Your task to perform on an android device: stop showing notifications on the lock screen Image 0: 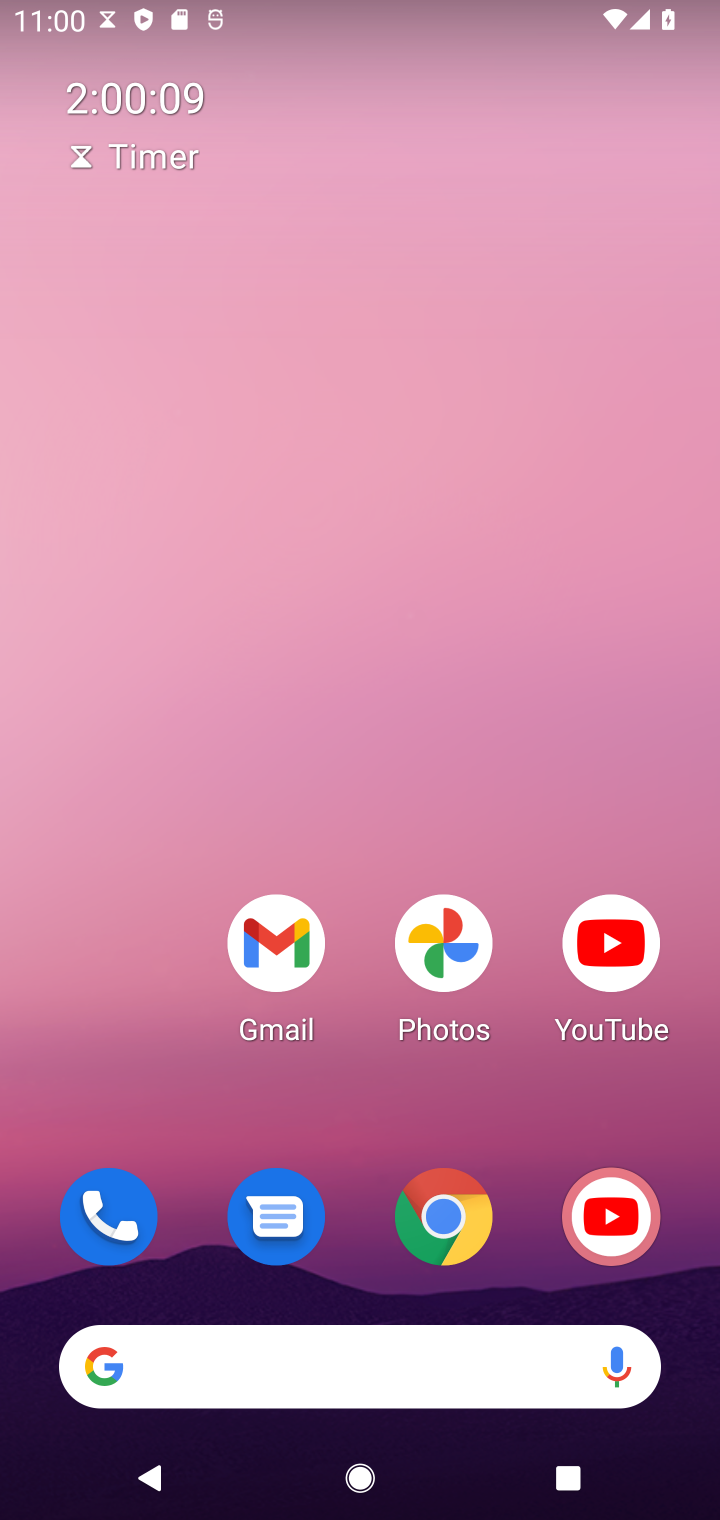
Step 0: drag from (112, 1094) to (384, 35)
Your task to perform on an android device: stop showing notifications on the lock screen Image 1: 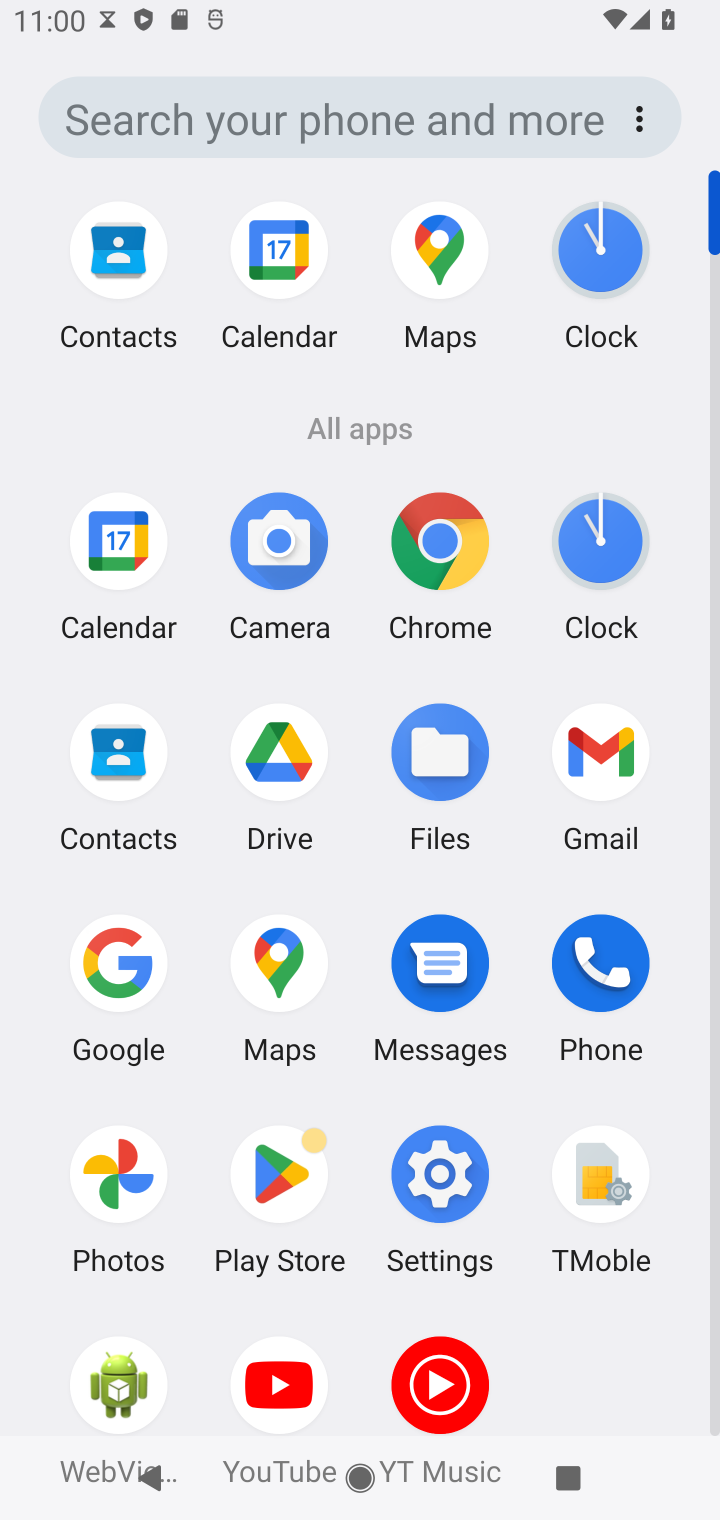
Step 1: click (441, 1174)
Your task to perform on an android device: stop showing notifications on the lock screen Image 2: 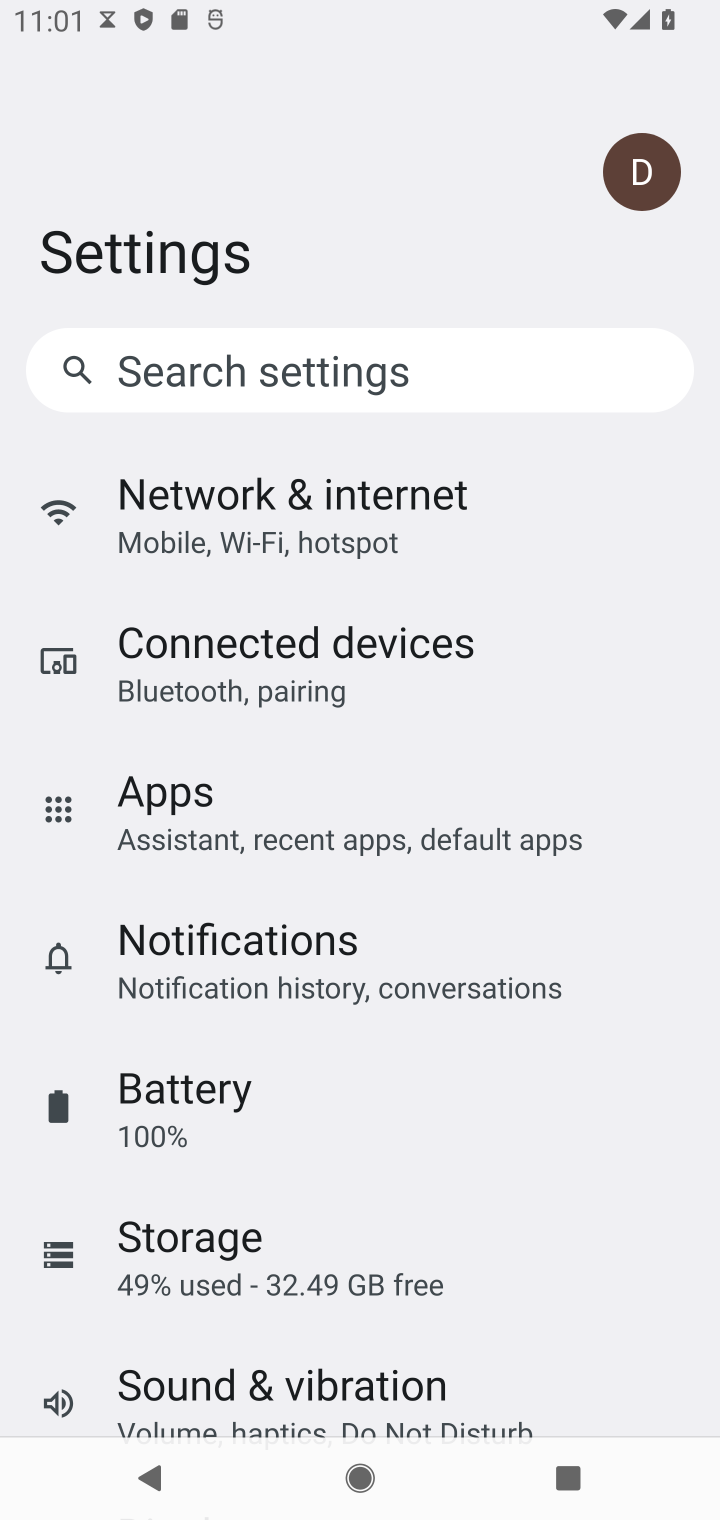
Step 2: click (255, 899)
Your task to perform on an android device: stop showing notifications on the lock screen Image 3: 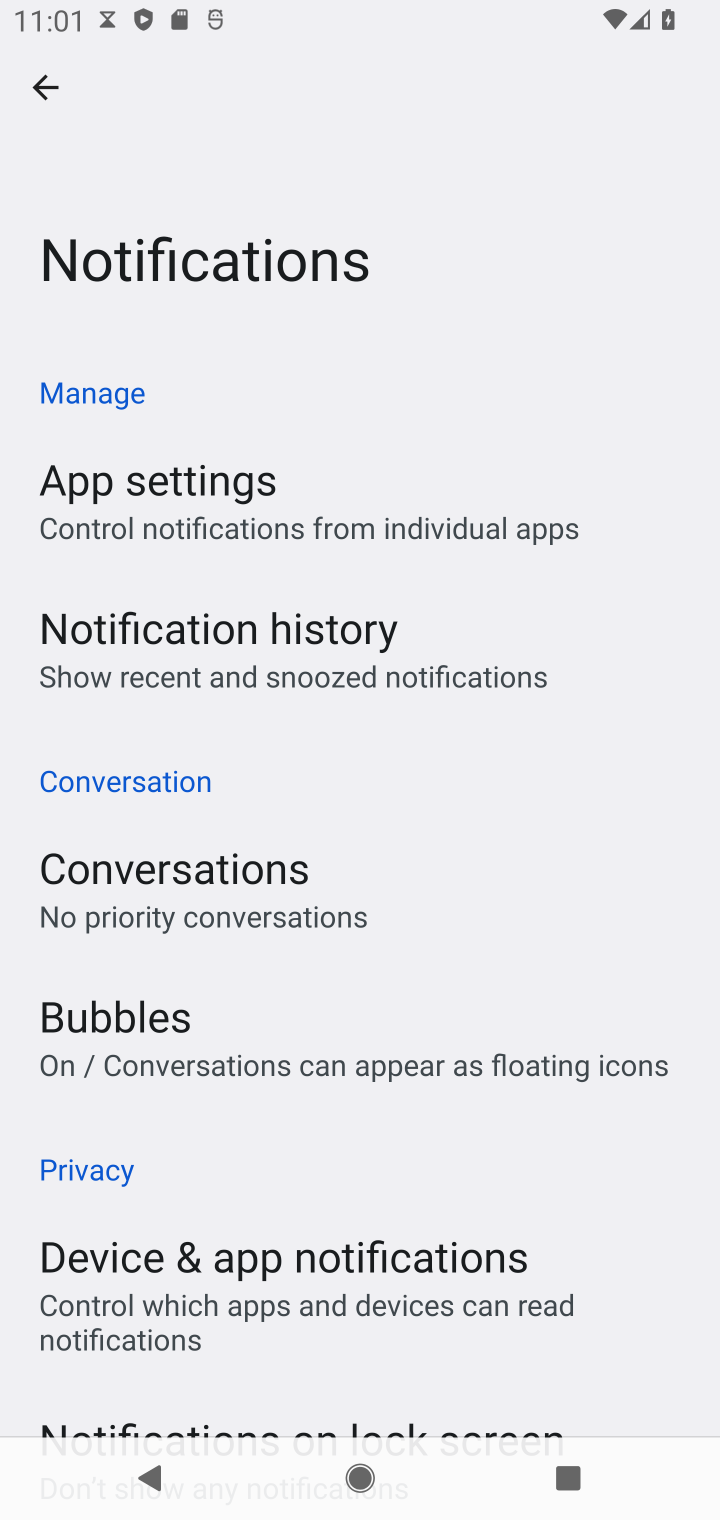
Step 3: drag from (271, 1211) to (271, 443)
Your task to perform on an android device: stop showing notifications on the lock screen Image 4: 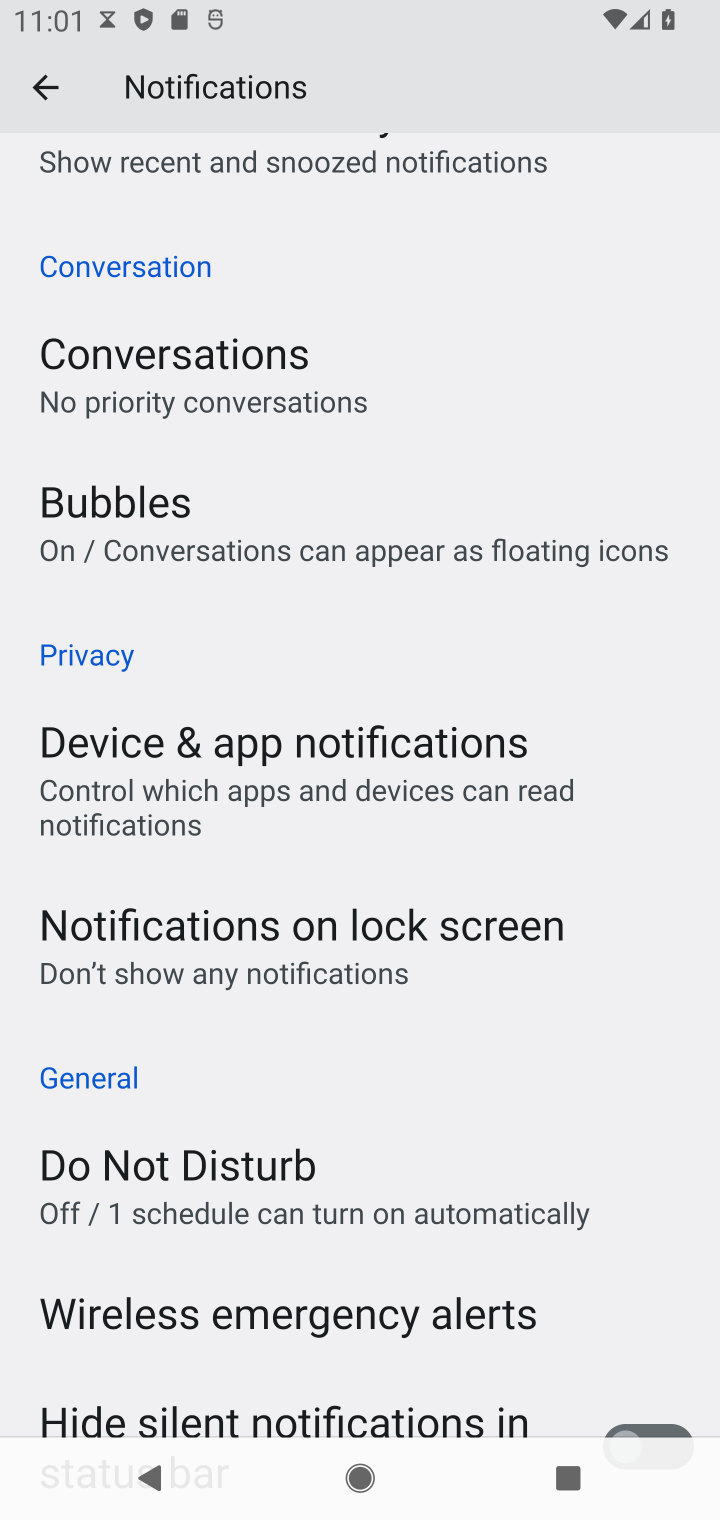
Step 4: click (411, 942)
Your task to perform on an android device: stop showing notifications on the lock screen Image 5: 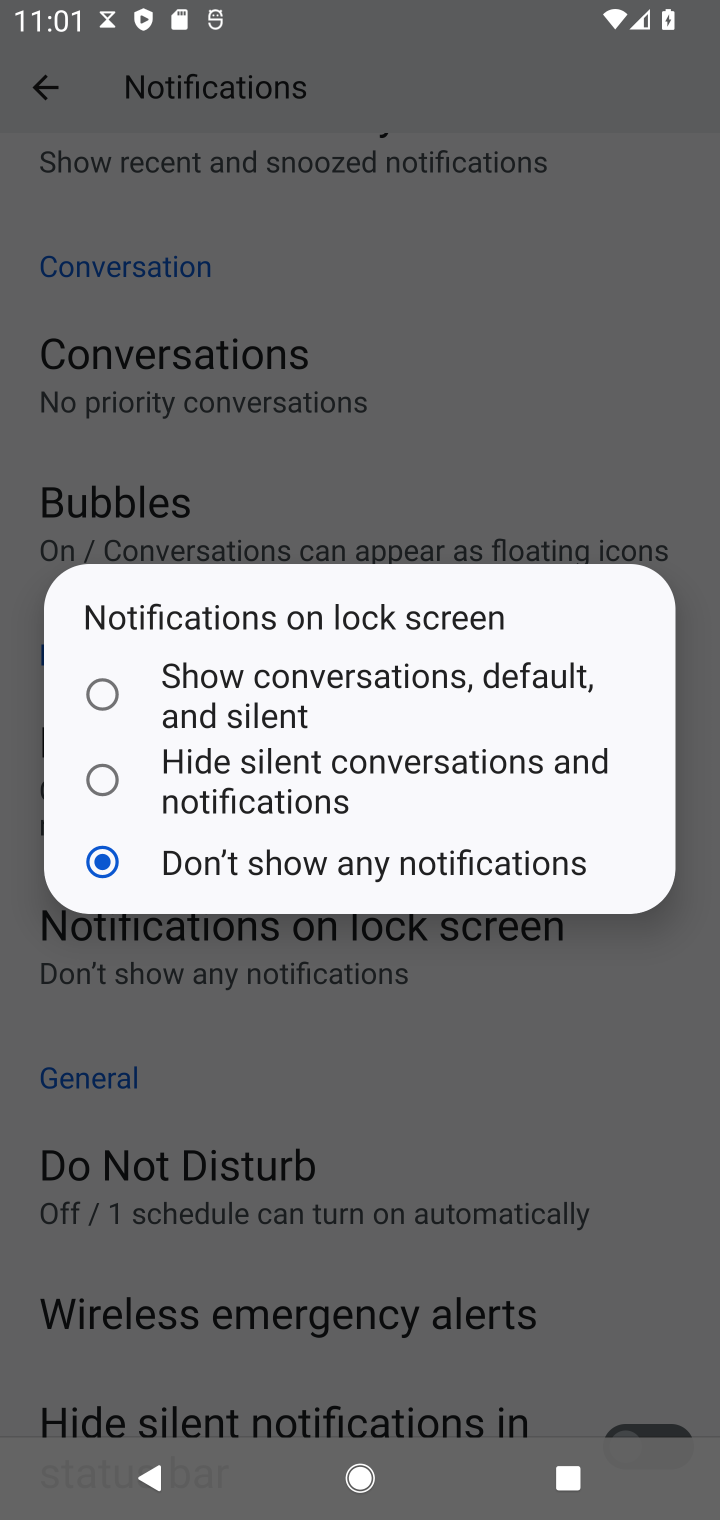
Step 5: task complete